Your task to perform on an android device: Show me popular videos on Youtube Image 0: 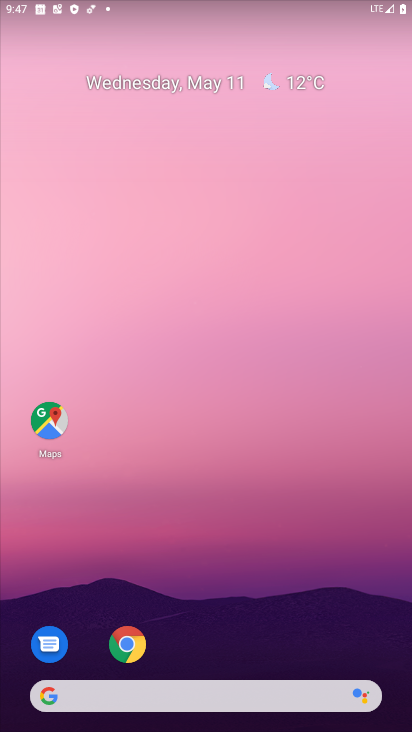
Step 0: drag from (237, 610) to (275, 142)
Your task to perform on an android device: Show me popular videos on Youtube Image 1: 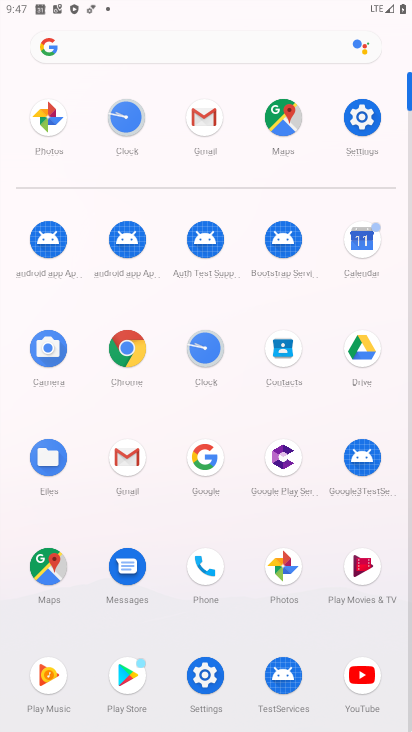
Step 1: click (351, 689)
Your task to perform on an android device: Show me popular videos on Youtube Image 2: 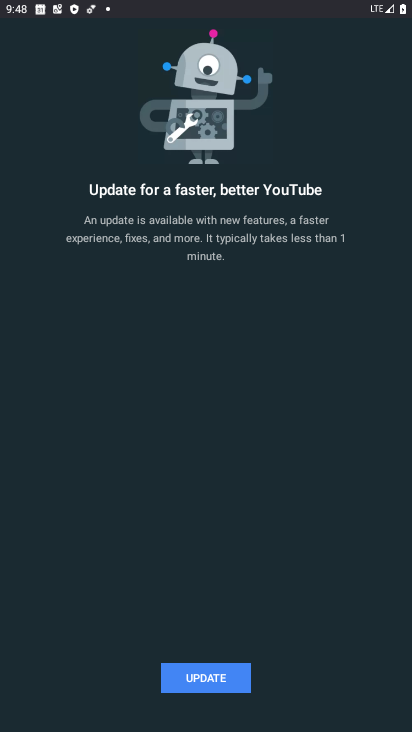
Step 2: press back button
Your task to perform on an android device: Show me popular videos on Youtube Image 3: 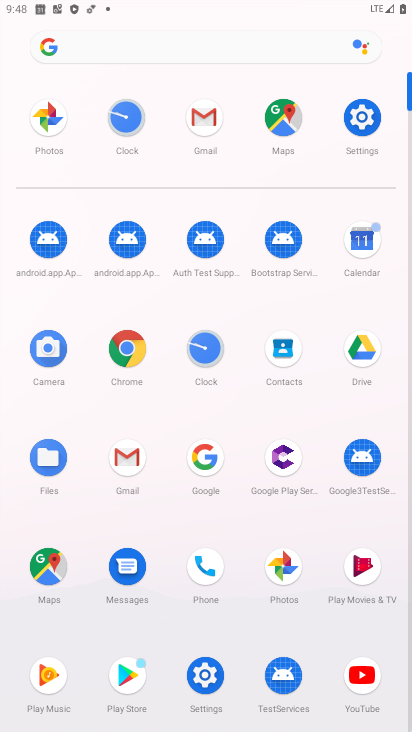
Step 3: click (364, 679)
Your task to perform on an android device: Show me popular videos on Youtube Image 4: 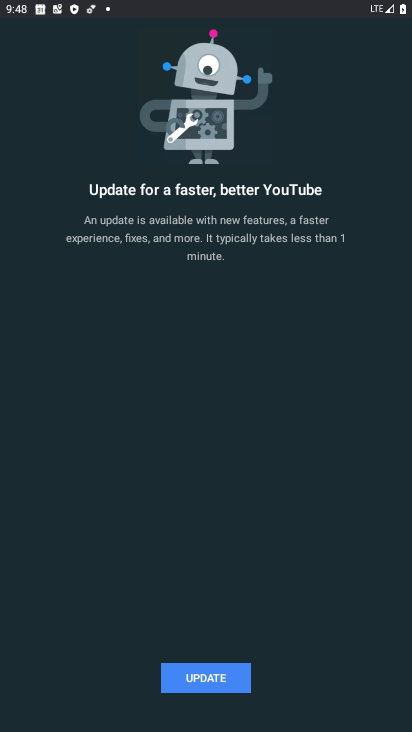
Step 4: click (233, 666)
Your task to perform on an android device: Show me popular videos on Youtube Image 5: 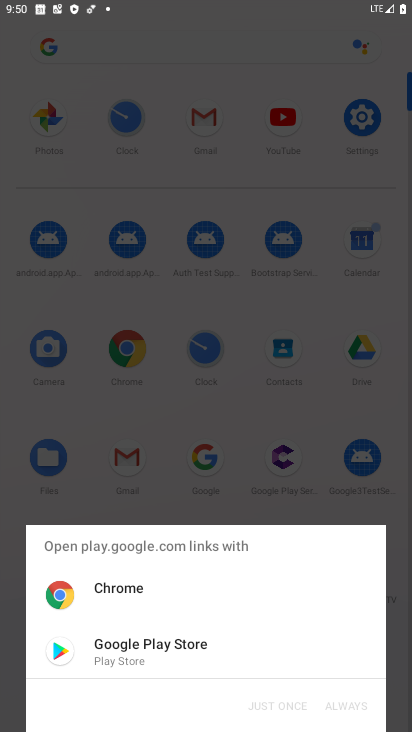
Step 5: click (213, 656)
Your task to perform on an android device: Show me popular videos on Youtube Image 6: 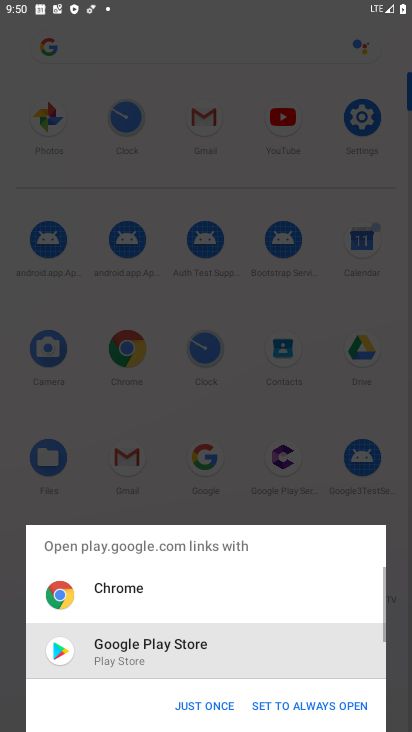
Step 6: click (257, 701)
Your task to perform on an android device: Show me popular videos on Youtube Image 7: 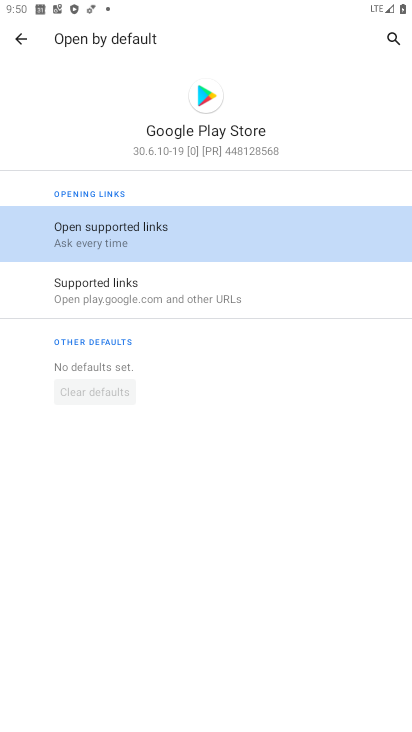
Step 7: click (26, 42)
Your task to perform on an android device: Show me popular videos on Youtube Image 8: 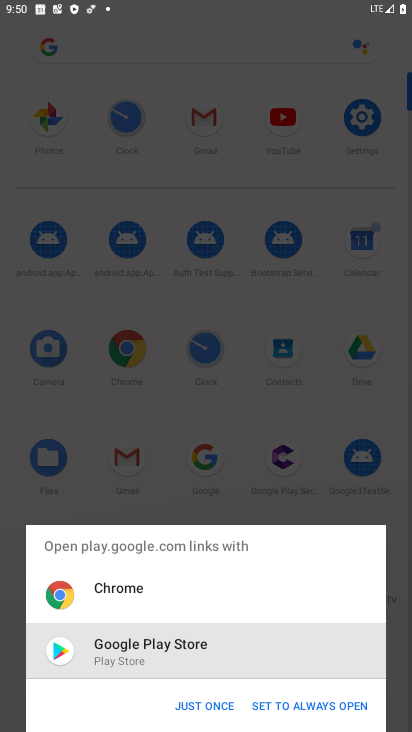
Step 8: click (209, 698)
Your task to perform on an android device: Show me popular videos on Youtube Image 9: 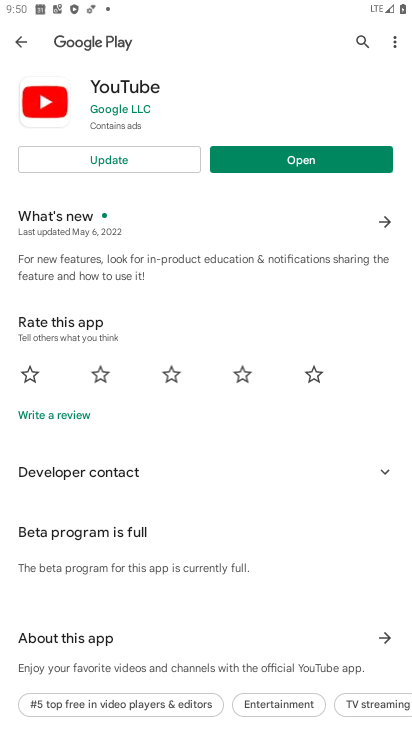
Step 9: click (125, 161)
Your task to perform on an android device: Show me popular videos on Youtube Image 10: 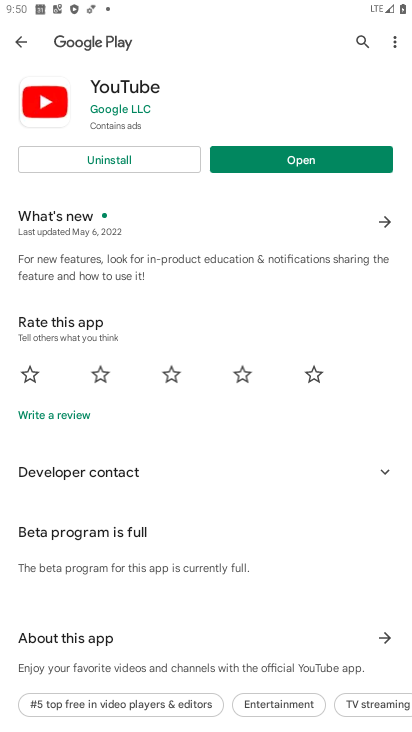
Step 10: click (257, 154)
Your task to perform on an android device: Show me popular videos on Youtube Image 11: 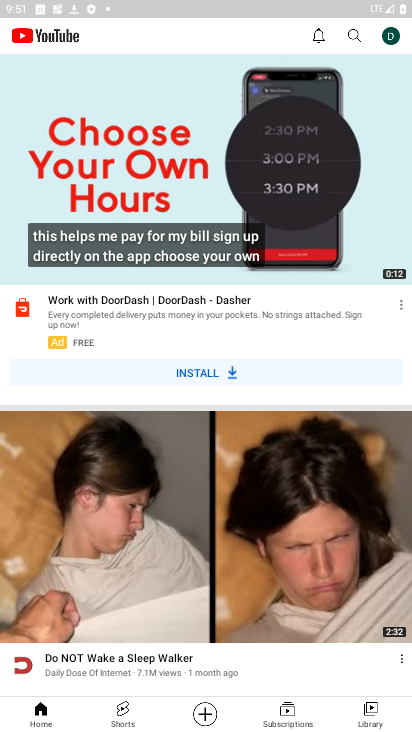
Step 11: task complete